Your task to perform on an android device: turn notification dots on Image 0: 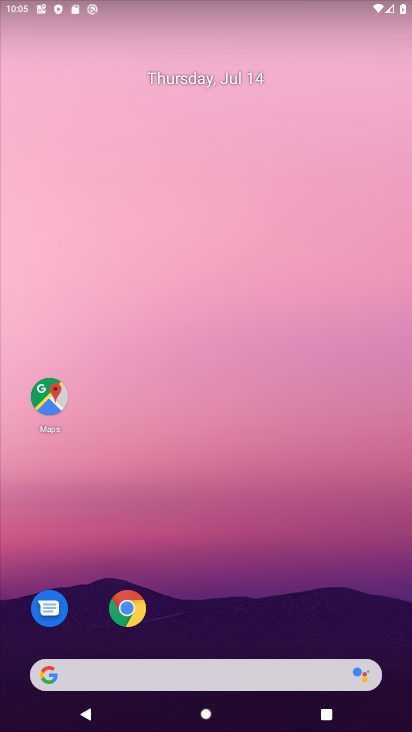
Step 0: drag from (192, 510) to (248, 69)
Your task to perform on an android device: turn notification dots on Image 1: 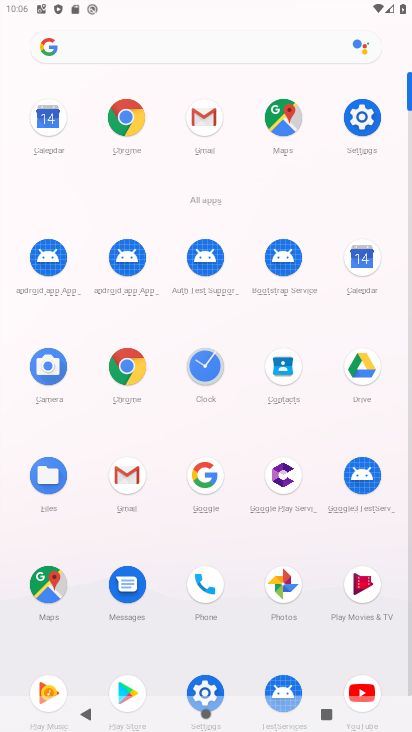
Step 1: click (352, 122)
Your task to perform on an android device: turn notification dots on Image 2: 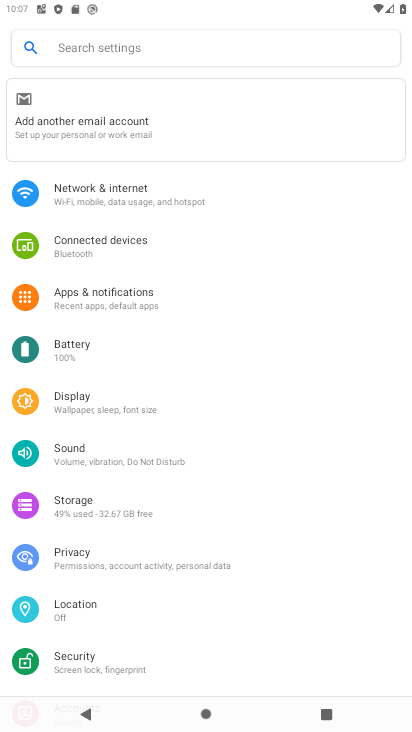
Step 2: drag from (105, 638) to (186, 300)
Your task to perform on an android device: turn notification dots on Image 3: 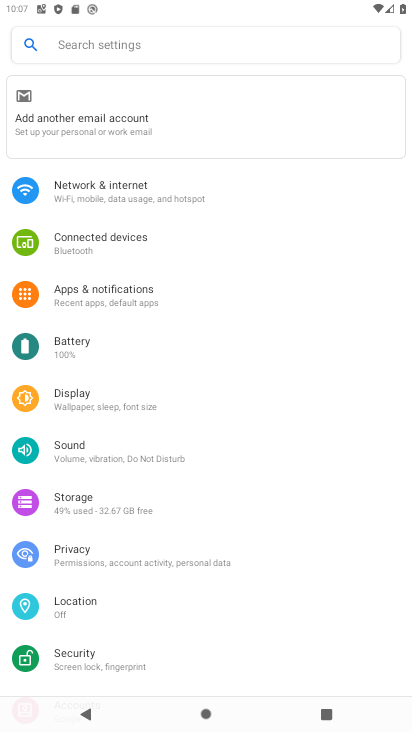
Step 3: drag from (136, 466) to (160, 249)
Your task to perform on an android device: turn notification dots on Image 4: 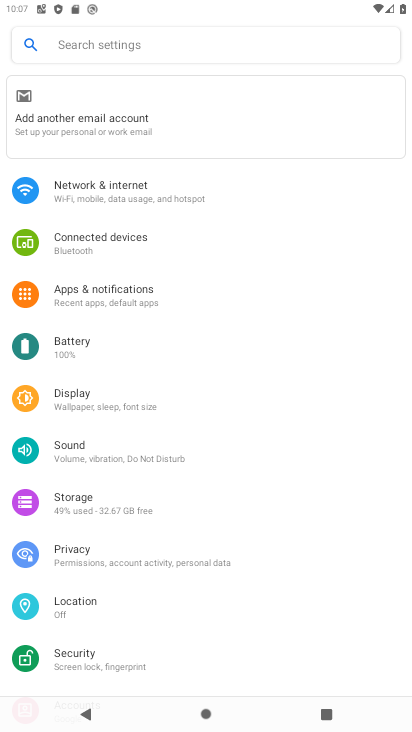
Step 4: click (88, 306)
Your task to perform on an android device: turn notification dots on Image 5: 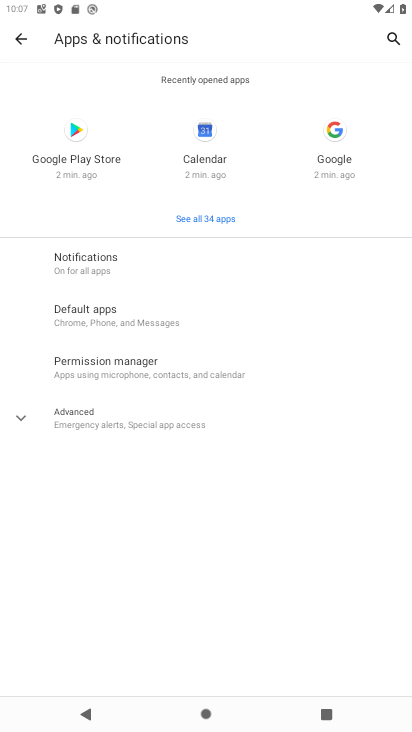
Step 5: click (88, 418)
Your task to perform on an android device: turn notification dots on Image 6: 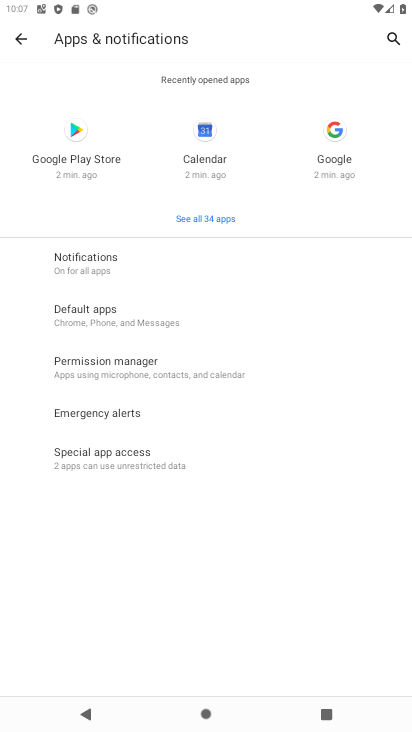
Step 6: click (87, 252)
Your task to perform on an android device: turn notification dots on Image 7: 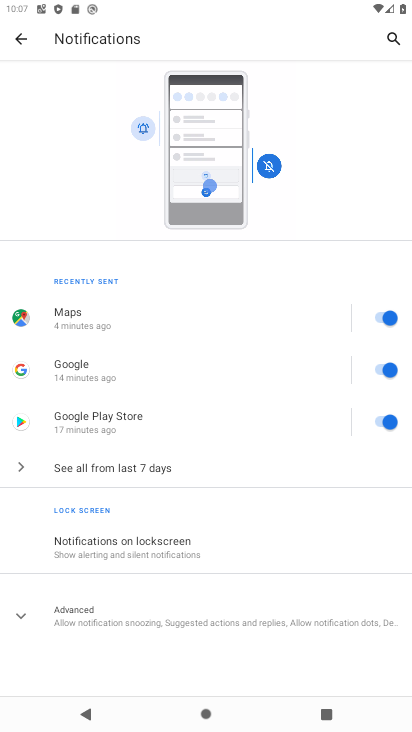
Step 7: click (74, 613)
Your task to perform on an android device: turn notification dots on Image 8: 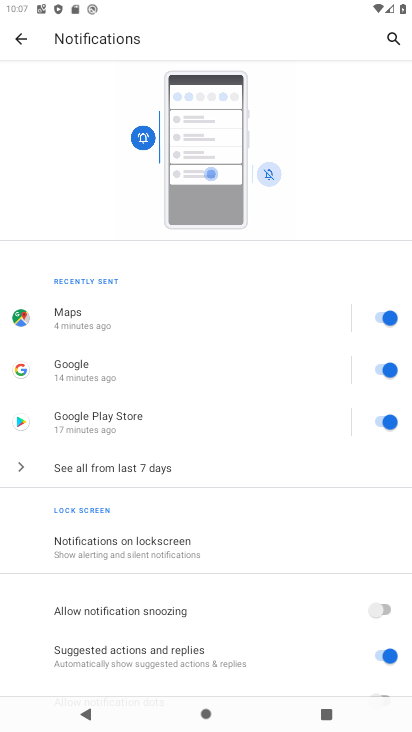
Step 8: drag from (134, 638) to (154, 407)
Your task to perform on an android device: turn notification dots on Image 9: 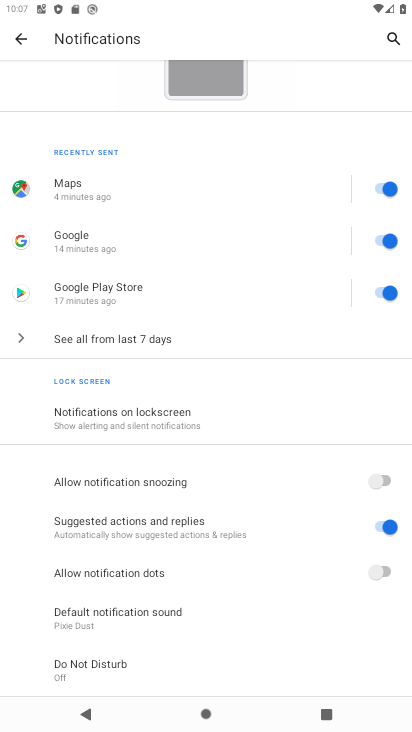
Step 9: click (393, 571)
Your task to perform on an android device: turn notification dots on Image 10: 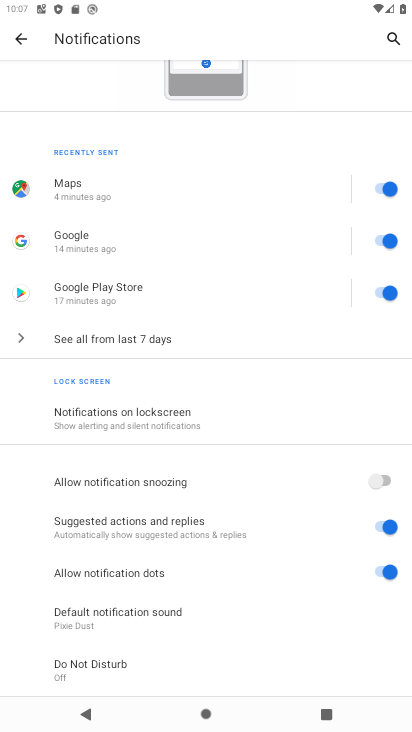
Step 10: task complete